Your task to perform on an android device: set the stopwatch Image 0: 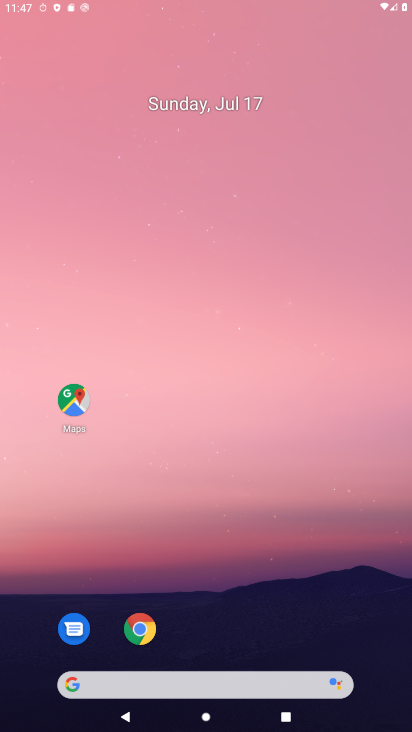
Step 0: press home button
Your task to perform on an android device: set the stopwatch Image 1: 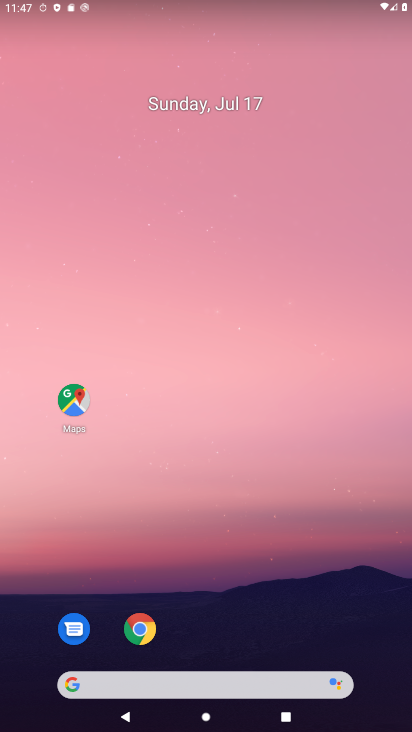
Step 1: drag from (211, 641) to (238, 140)
Your task to perform on an android device: set the stopwatch Image 2: 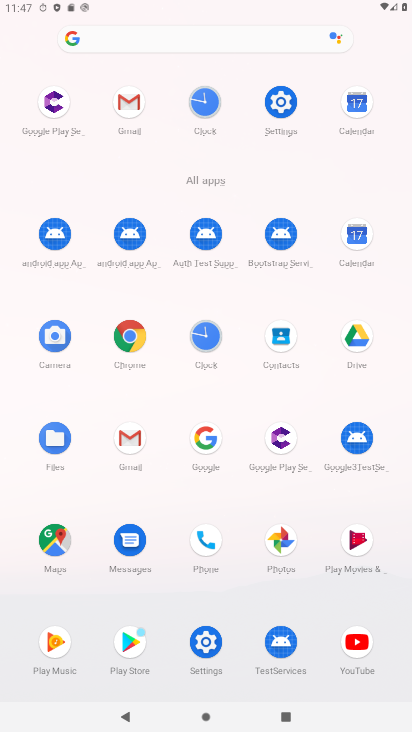
Step 2: click (199, 328)
Your task to perform on an android device: set the stopwatch Image 3: 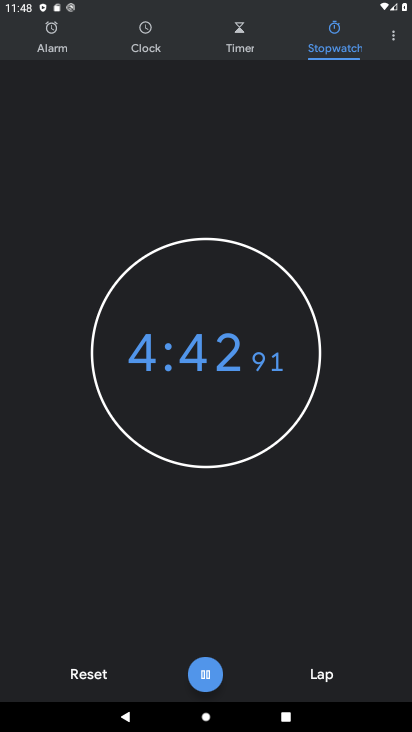
Step 3: task complete